Your task to perform on an android device: create a new album in the google photos Image 0: 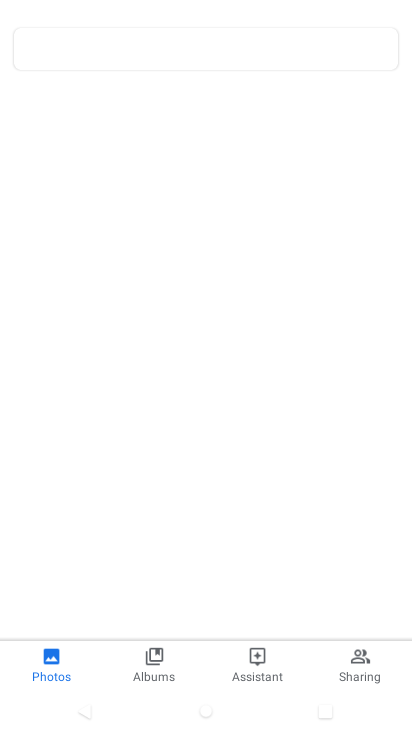
Step 0: press home button
Your task to perform on an android device: create a new album in the google photos Image 1: 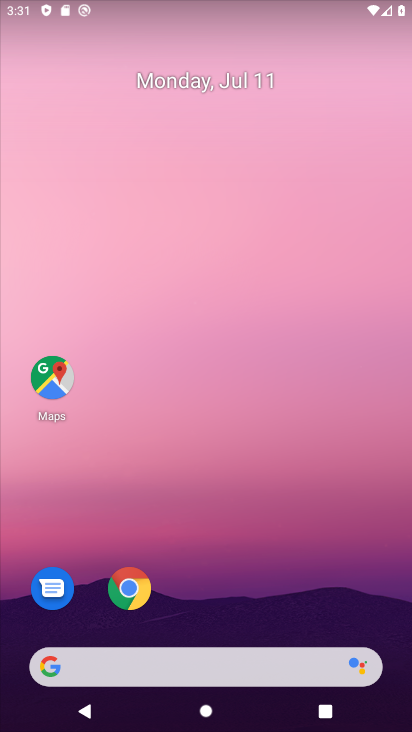
Step 1: drag from (220, 588) to (191, 148)
Your task to perform on an android device: create a new album in the google photos Image 2: 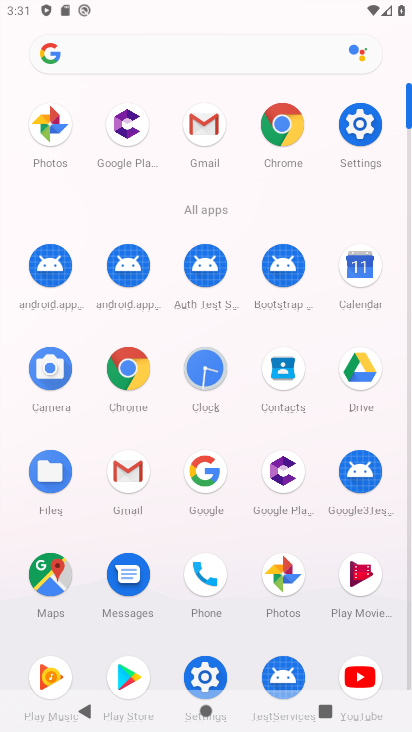
Step 2: click (280, 575)
Your task to perform on an android device: create a new album in the google photos Image 3: 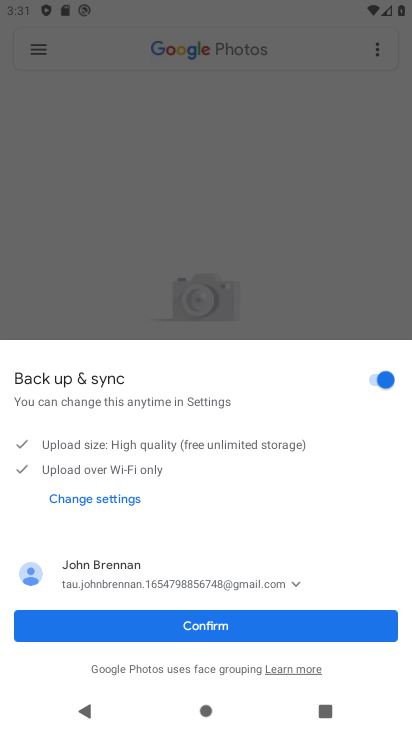
Step 3: click (234, 628)
Your task to perform on an android device: create a new album in the google photos Image 4: 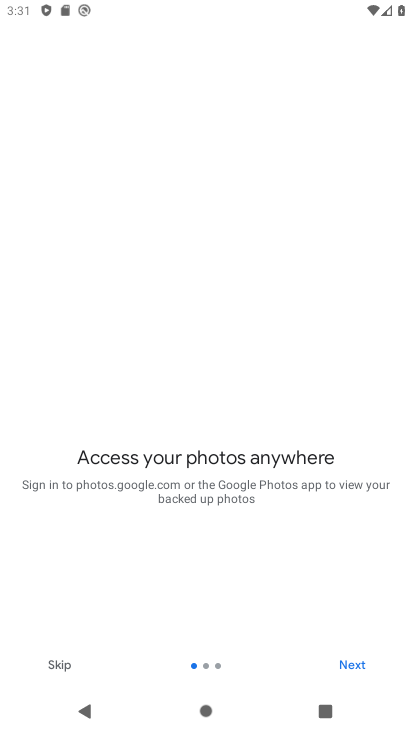
Step 4: click (351, 664)
Your task to perform on an android device: create a new album in the google photos Image 5: 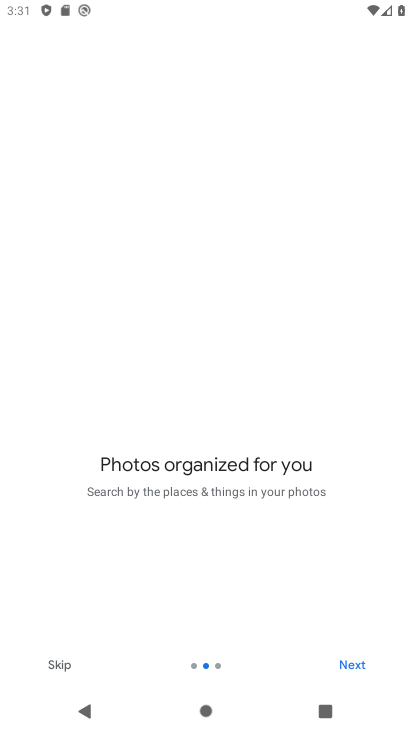
Step 5: click (350, 663)
Your task to perform on an android device: create a new album in the google photos Image 6: 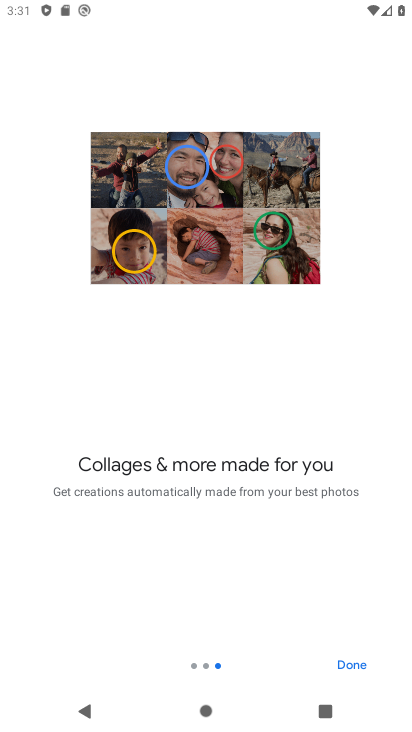
Step 6: click (350, 663)
Your task to perform on an android device: create a new album in the google photos Image 7: 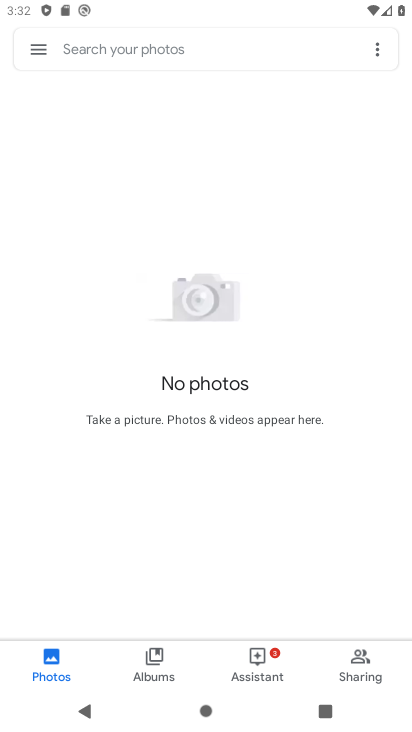
Step 7: click (154, 653)
Your task to perform on an android device: create a new album in the google photos Image 8: 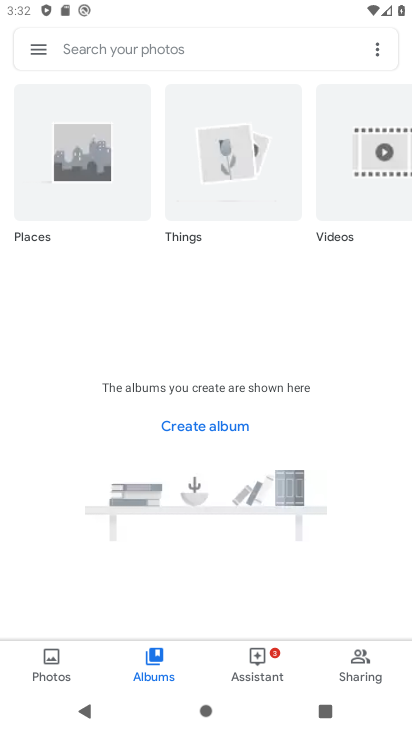
Step 8: click (202, 429)
Your task to perform on an android device: create a new album in the google photos Image 9: 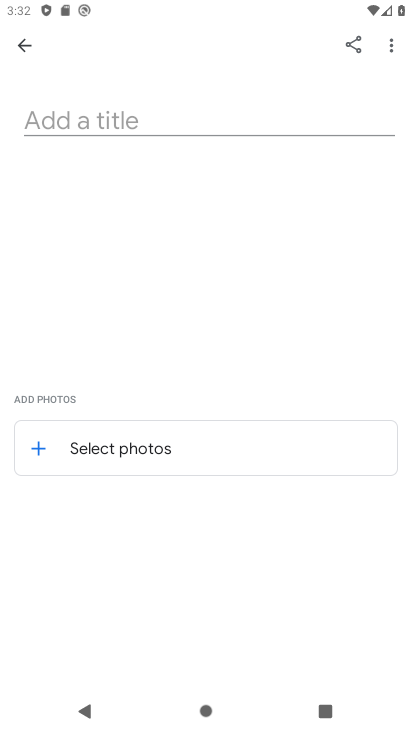
Step 9: click (97, 446)
Your task to perform on an android device: create a new album in the google photos Image 10: 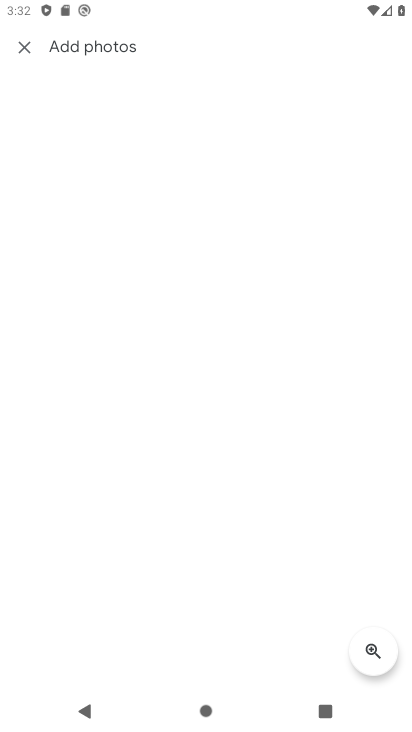
Step 10: task complete